Your task to perform on an android device: Go to internet settings Image 0: 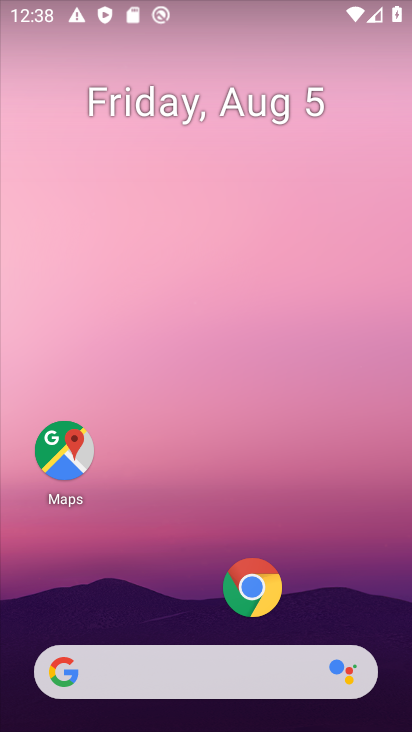
Step 0: drag from (93, 702) to (221, 72)
Your task to perform on an android device: Go to internet settings Image 1: 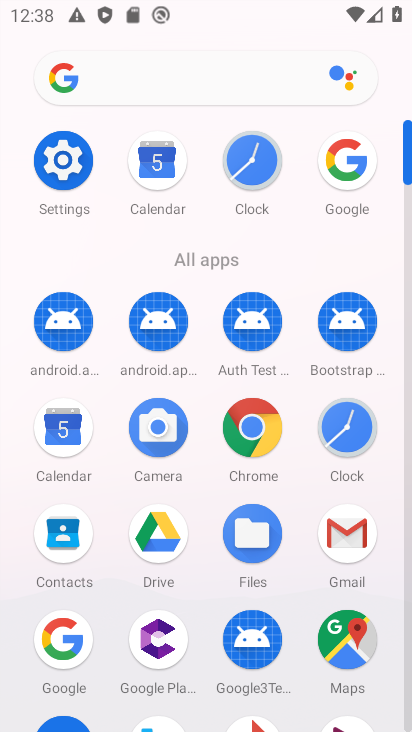
Step 1: drag from (124, 708) to (110, 68)
Your task to perform on an android device: Go to internet settings Image 2: 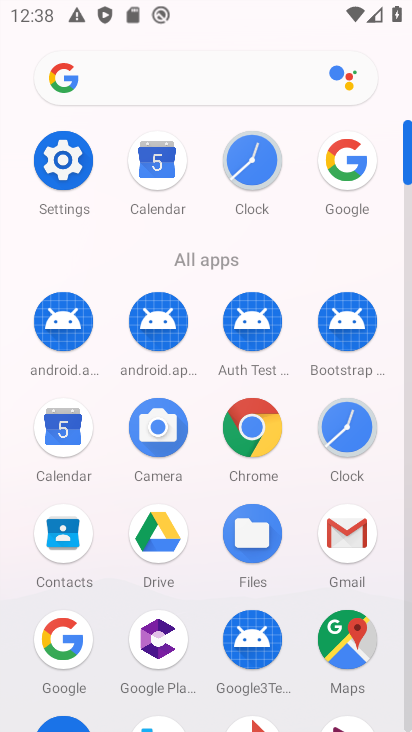
Step 2: click (61, 156)
Your task to perform on an android device: Go to internet settings Image 3: 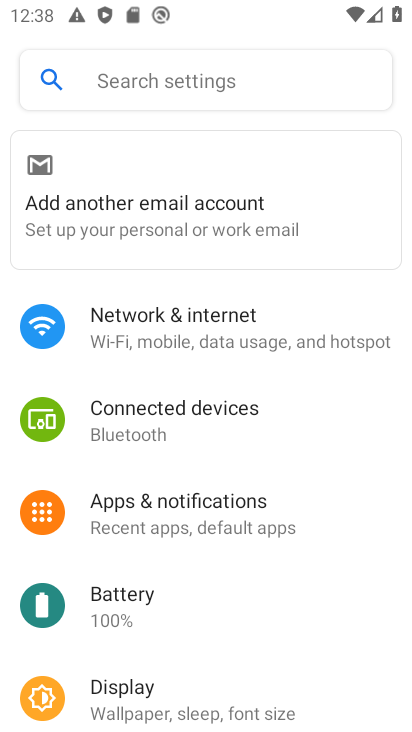
Step 3: click (228, 342)
Your task to perform on an android device: Go to internet settings Image 4: 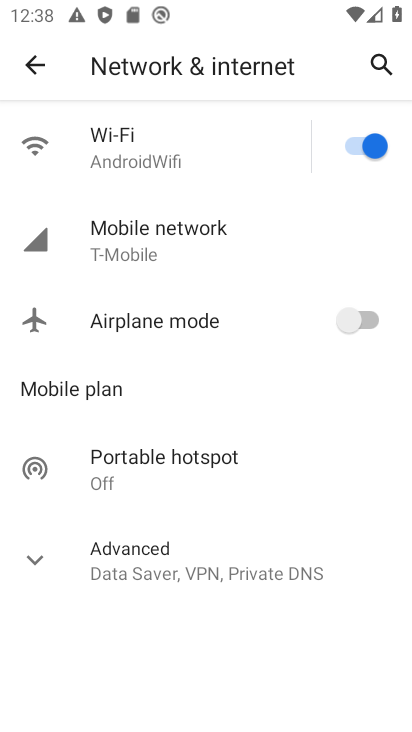
Step 4: task complete